Your task to perform on an android device: Open Google Chrome Image 0: 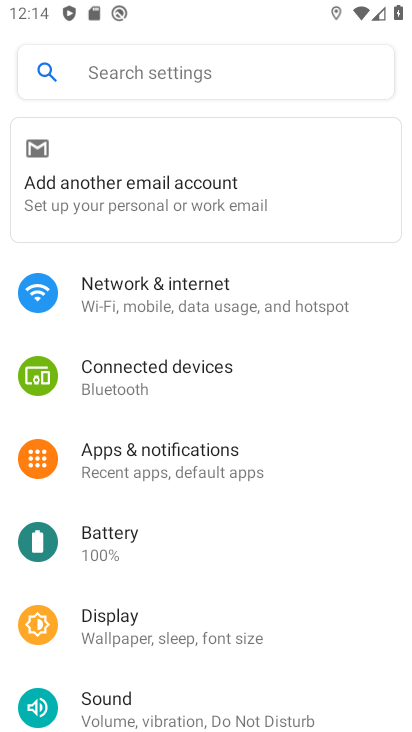
Step 0: press home button
Your task to perform on an android device: Open Google Chrome Image 1: 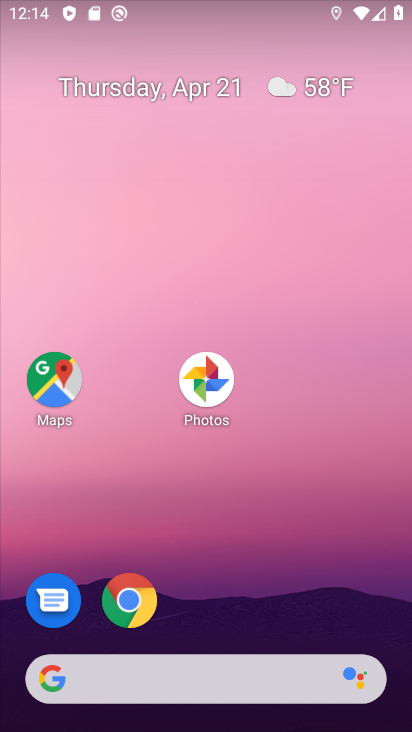
Step 1: click (124, 613)
Your task to perform on an android device: Open Google Chrome Image 2: 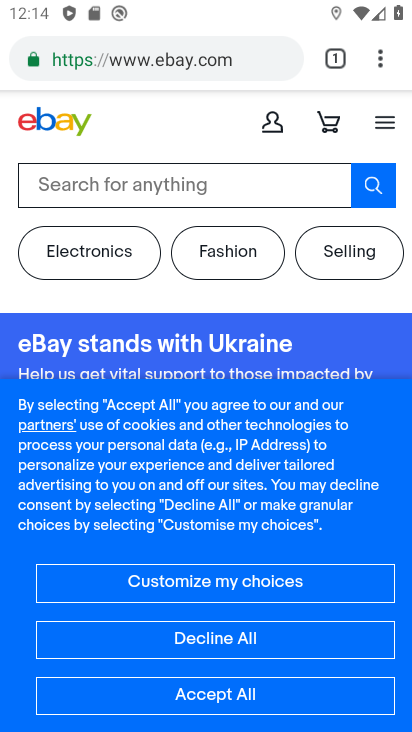
Step 2: task complete